Your task to perform on an android device: open device folders in google photos Image 0: 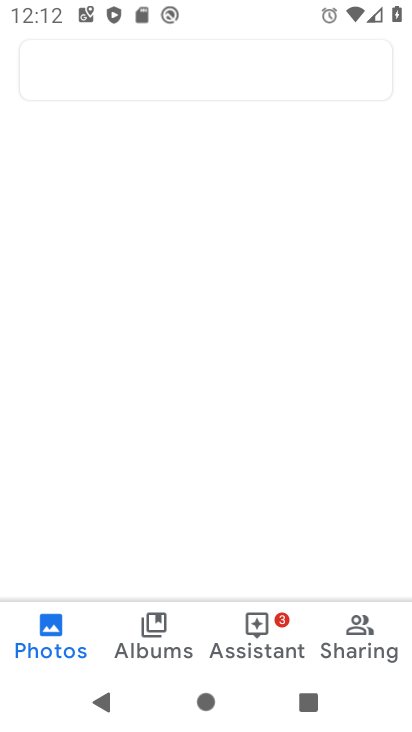
Step 0: click (337, 90)
Your task to perform on an android device: open device folders in google photos Image 1: 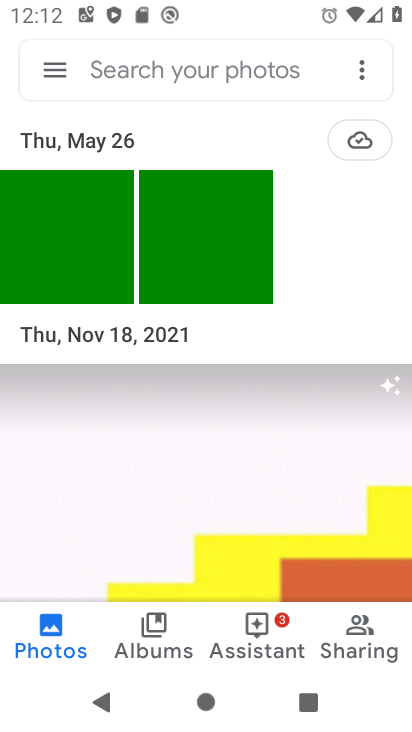
Step 1: click (60, 71)
Your task to perform on an android device: open device folders in google photos Image 2: 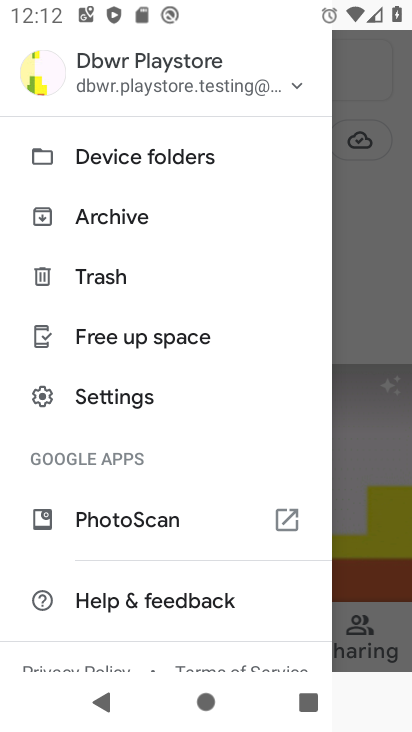
Step 2: click (149, 159)
Your task to perform on an android device: open device folders in google photos Image 3: 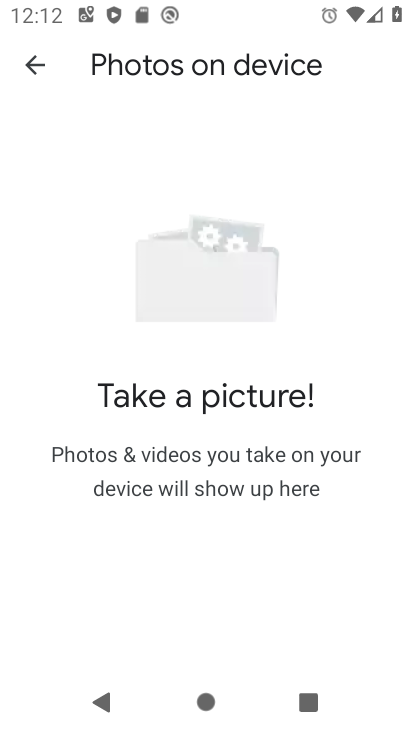
Step 3: task complete